Your task to perform on an android device: Go to Wikipedia Image 0: 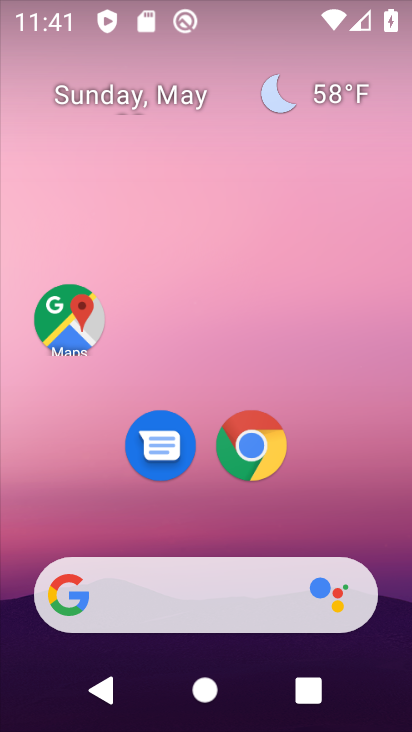
Step 0: click (252, 441)
Your task to perform on an android device: Go to Wikipedia Image 1: 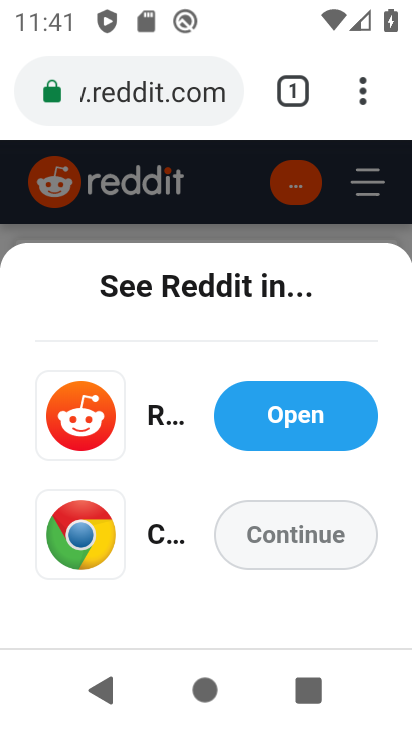
Step 1: click (288, 91)
Your task to perform on an android device: Go to Wikipedia Image 2: 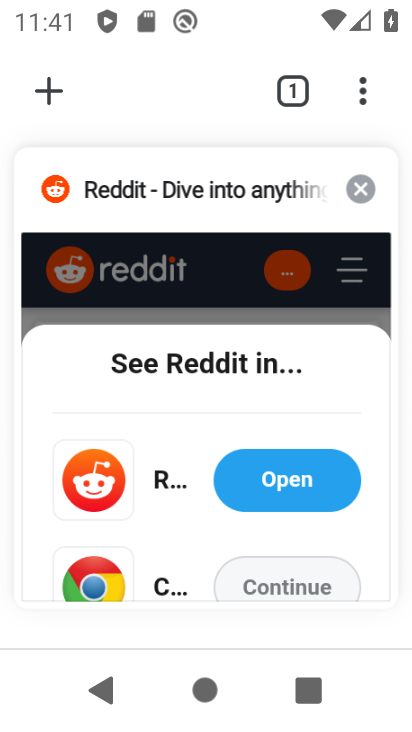
Step 2: click (361, 185)
Your task to perform on an android device: Go to Wikipedia Image 3: 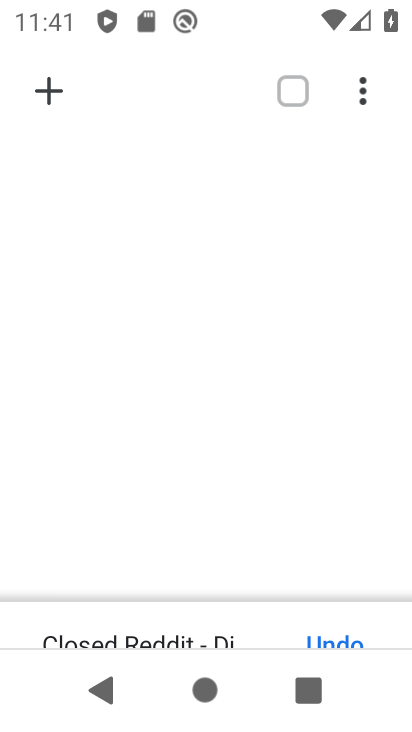
Step 3: click (57, 96)
Your task to perform on an android device: Go to Wikipedia Image 4: 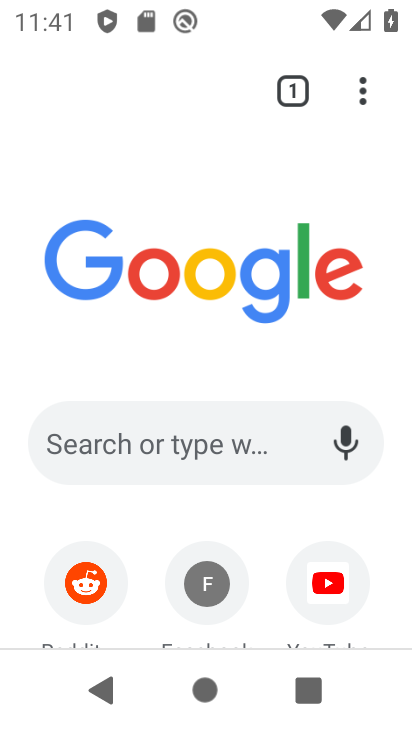
Step 4: drag from (260, 553) to (266, 274)
Your task to perform on an android device: Go to Wikipedia Image 5: 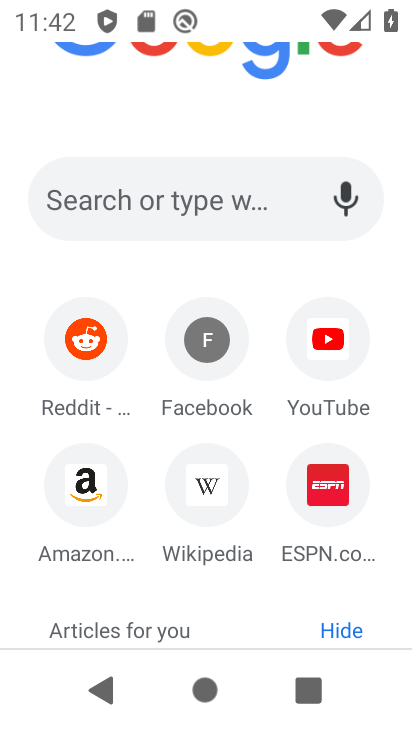
Step 5: click (205, 478)
Your task to perform on an android device: Go to Wikipedia Image 6: 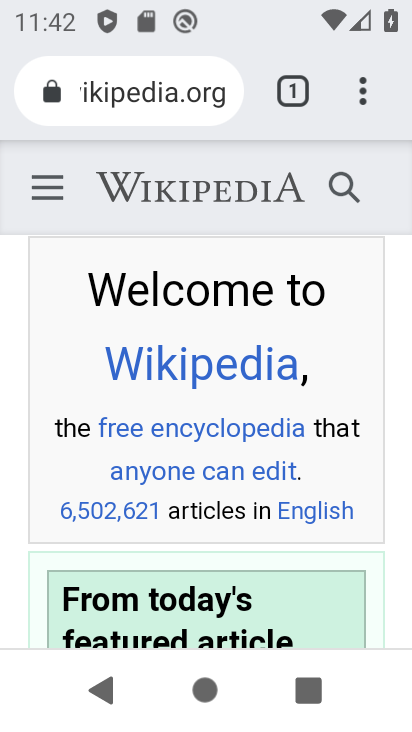
Step 6: task complete